Your task to perform on an android device: Show me the alarms in the clock app Image 0: 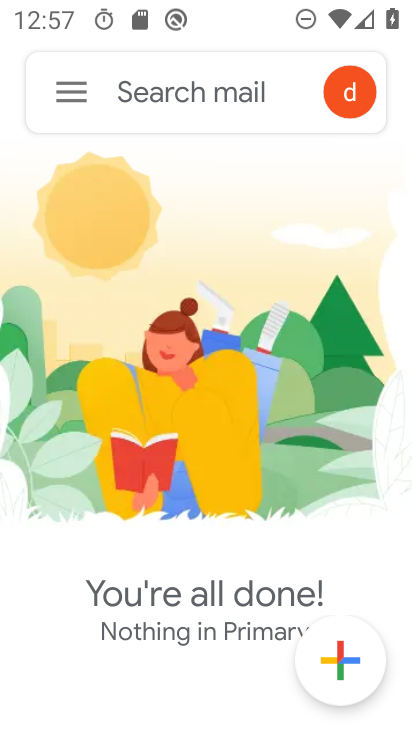
Step 0: press home button
Your task to perform on an android device: Show me the alarms in the clock app Image 1: 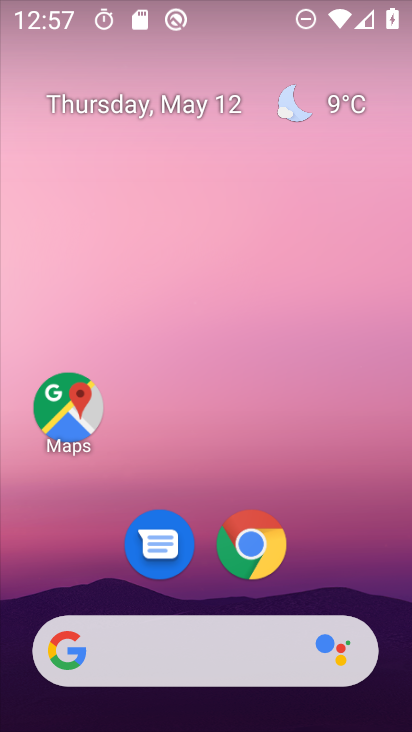
Step 1: drag from (209, 724) to (222, 157)
Your task to perform on an android device: Show me the alarms in the clock app Image 2: 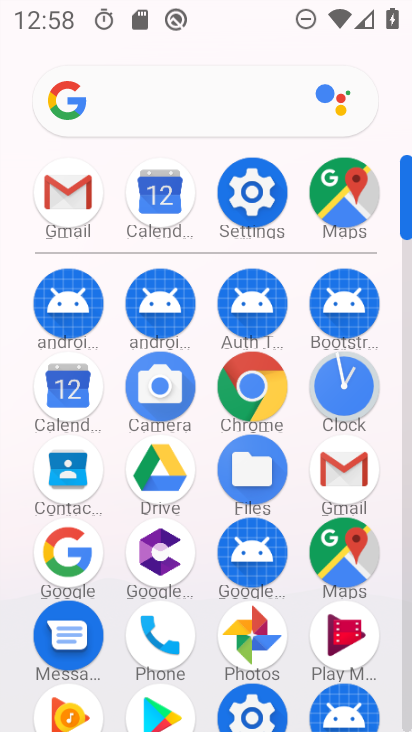
Step 2: click (343, 390)
Your task to perform on an android device: Show me the alarms in the clock app Image 3: 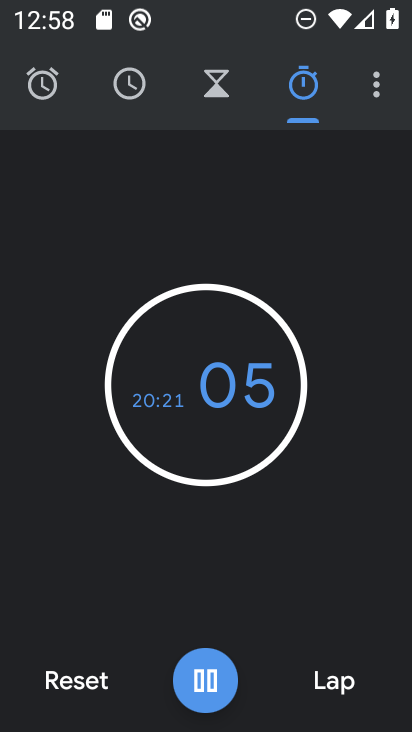
Step 3: click (39, 83)
Your task to perform on an android device: Show me the alarms in the clock app Image 4: 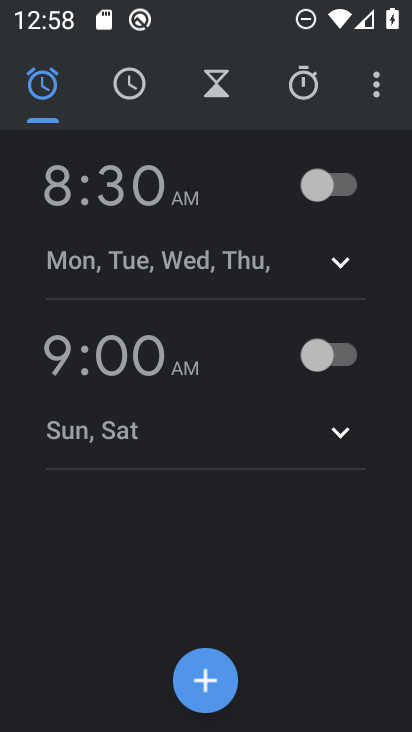
Step 4: task complete